Your task to perform on an android device: turn on priority inbox in the gmail app Image 0: 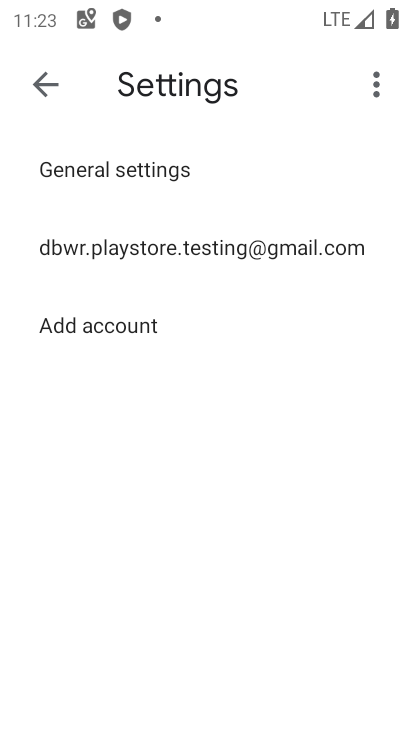
Step 0: click (163, 250)
Your task to perform on an android device: turn on priority inbox in the gmail app Image 1: 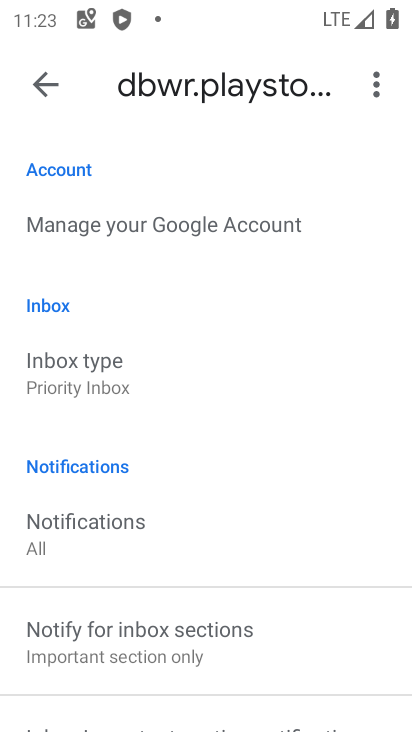
Step 1: click (78, 382)
Your task to perform on an android device: turn on priority inbox in the gmail app Image 2: 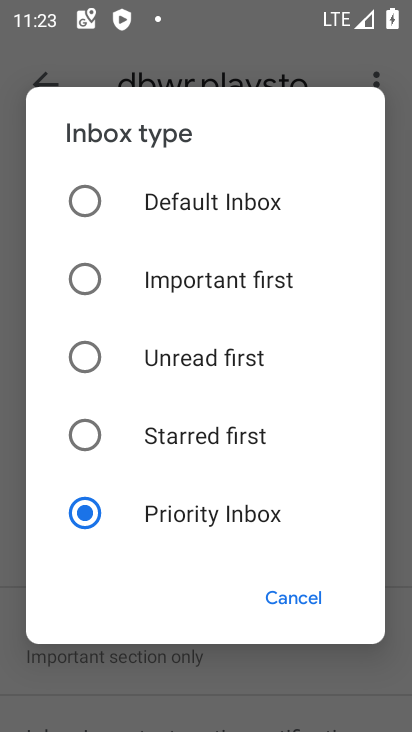
Step 2: click (141, 517)
Your task to perform on an android device: turn on priority inbox in the gmail app Image 3: 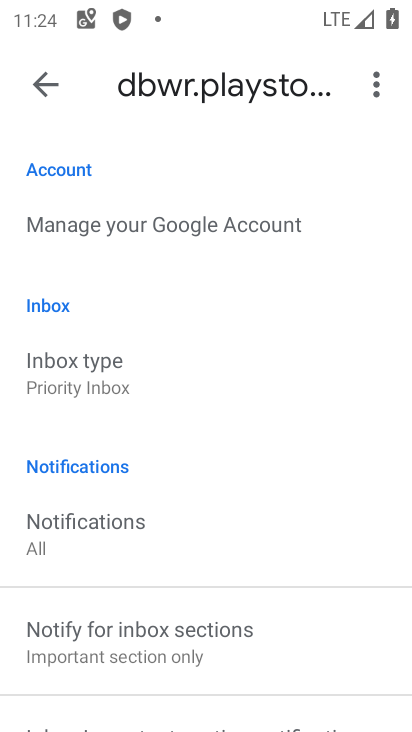
Step 3: task complete